Your task to perform on an android device: open app "Flipkart Online Shopping App" (install if not already installed) Image 0: 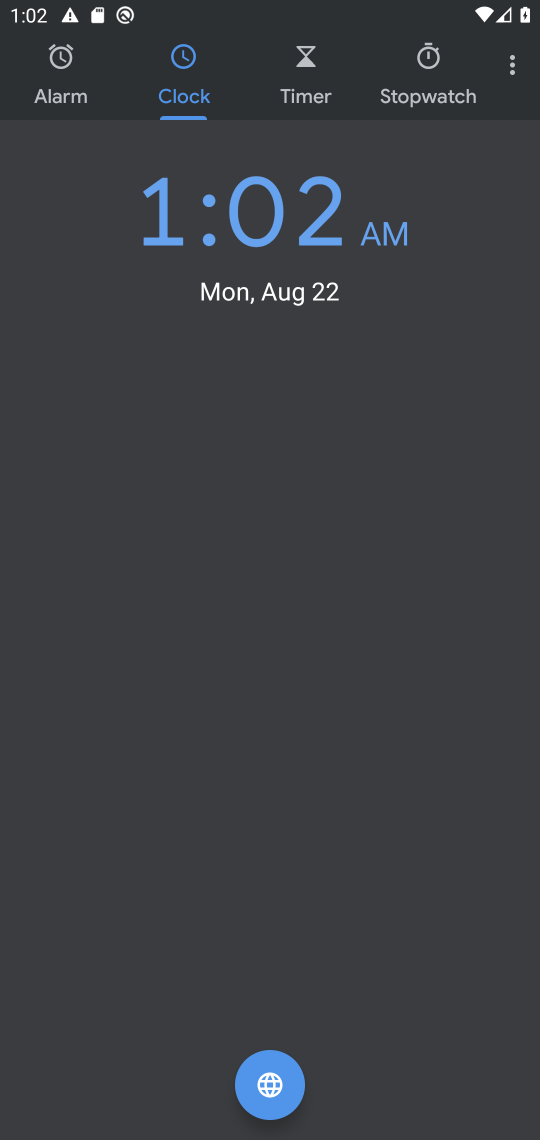
Step 0: press home button
Your task to perform on an android device: open app "Flipkart Online Shopping App" (install if not already installed) Image 1: 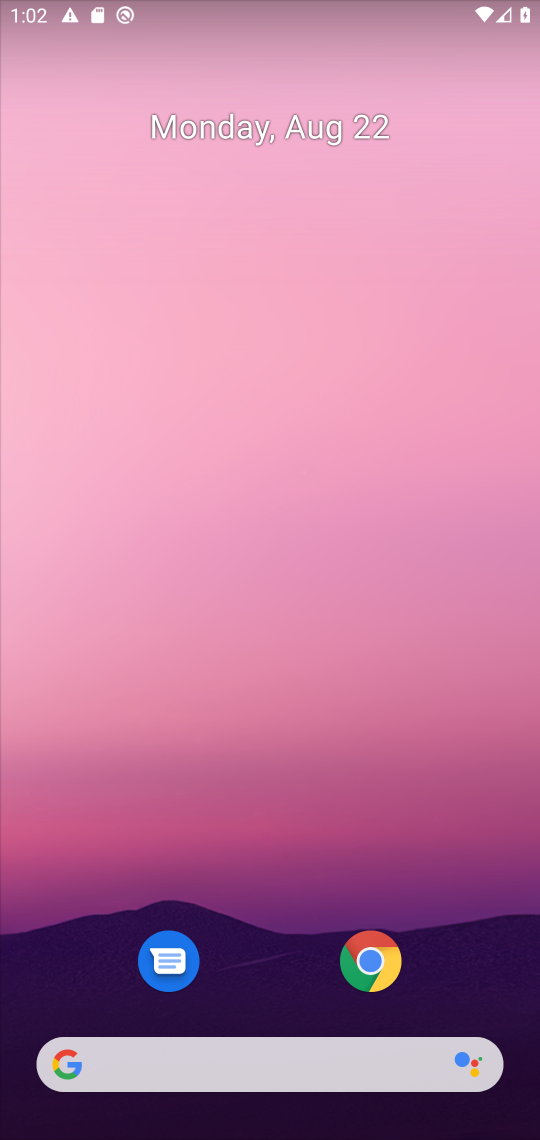
Step 1: drag from (486, 1005) to (481, 315)
Your task to perform on an android device: open app "Flipkart Online Shopping App" (install if not already installed) Image 2: 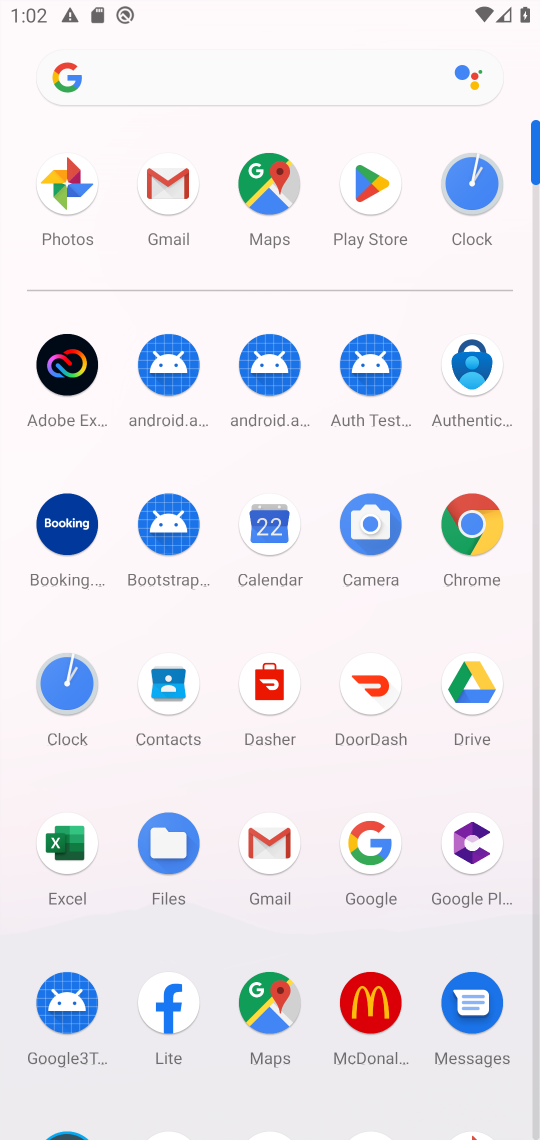
Step 2: click (357, 185)
Your task to perform on an android device: open app "Flipkart Online Shopping App" (install if not already installed) Image 3: 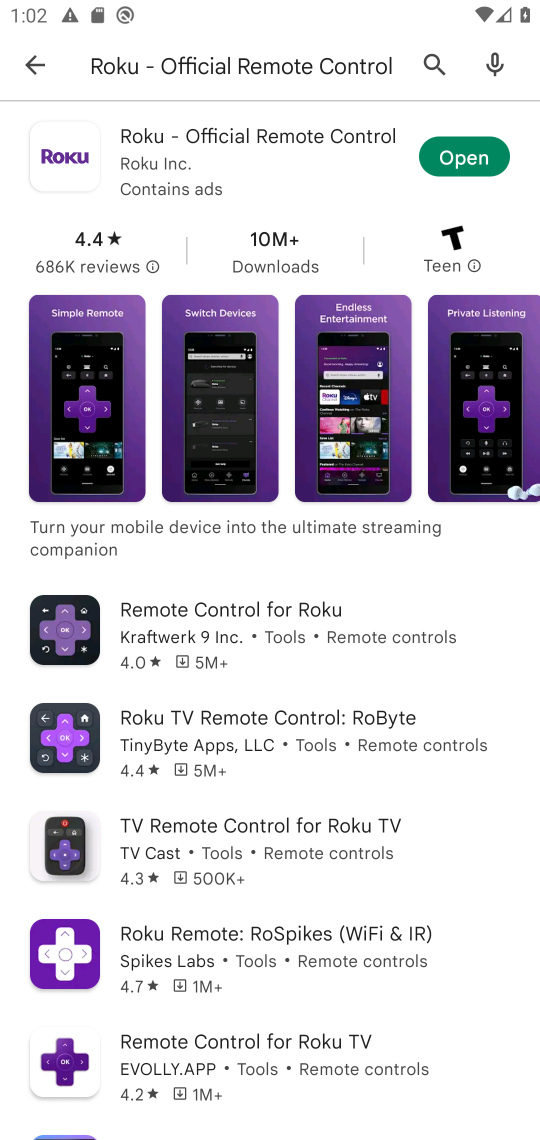
Step 3: press back button
Your task to perform on an android device: open app "Flipkart Online Shopping App" (install if not already installed) Image 4: 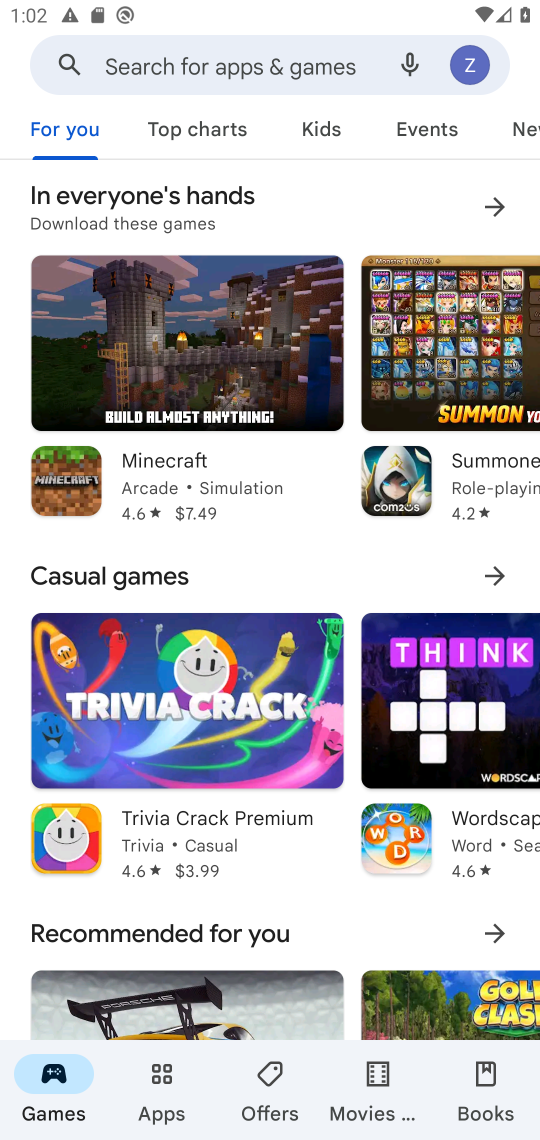
Step 4: click (294, 55)
Your task to perform on an android device: open app "Flipkart Online Shopping App" (install if not already installed) Image 5: 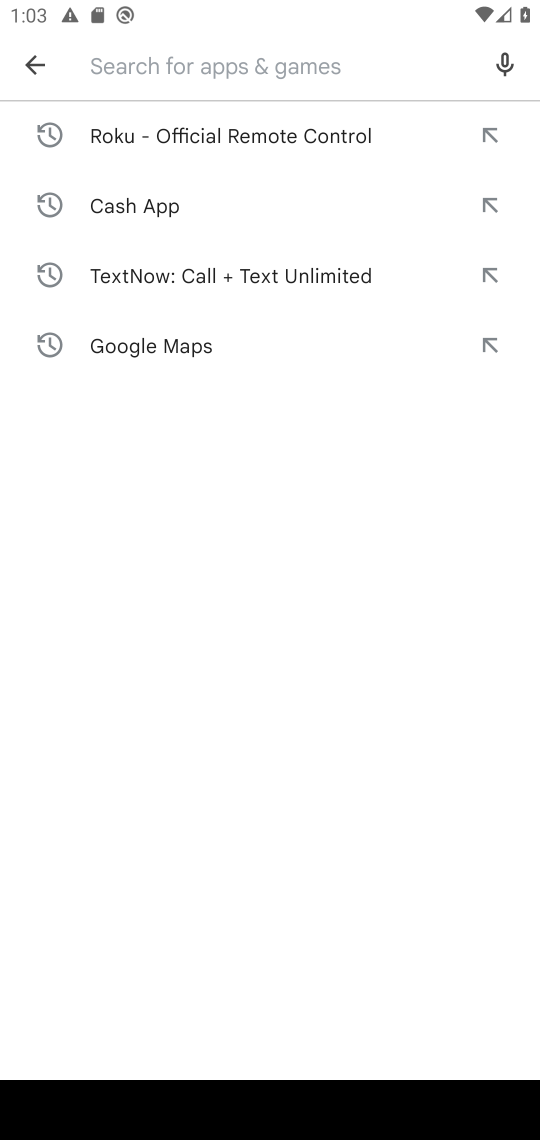
Step 5: type "Flipkart Online Shopping App"
Your task to perform on an android device: open app "Flipkart Online Shopping App" (install if not already installed) Image 6: 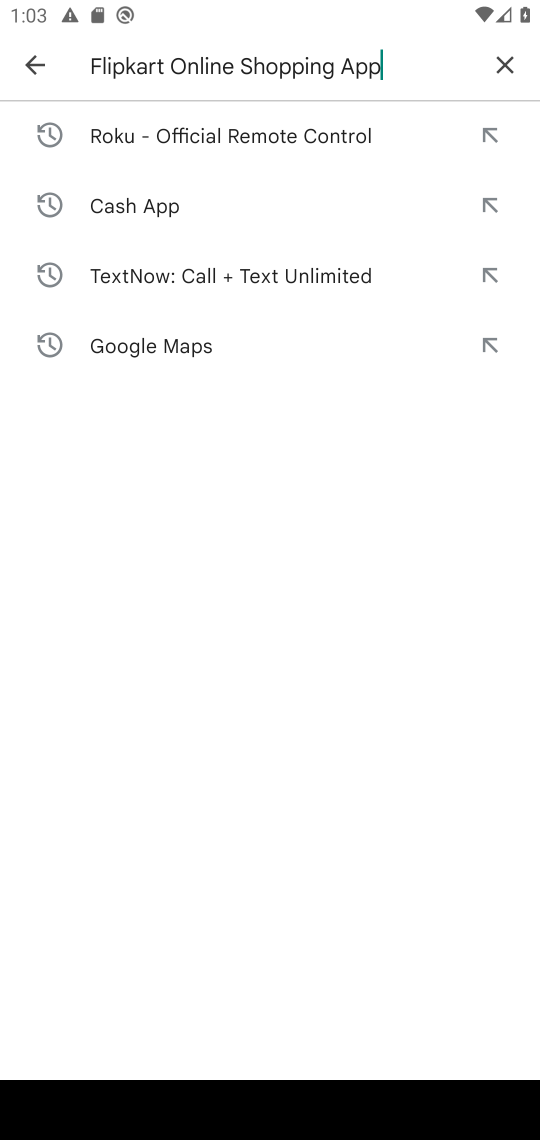
Step 6: press enter
Your task to perform on an android device: open app "Flipkart Online Shopping App" (install if not already installed) Image 7: 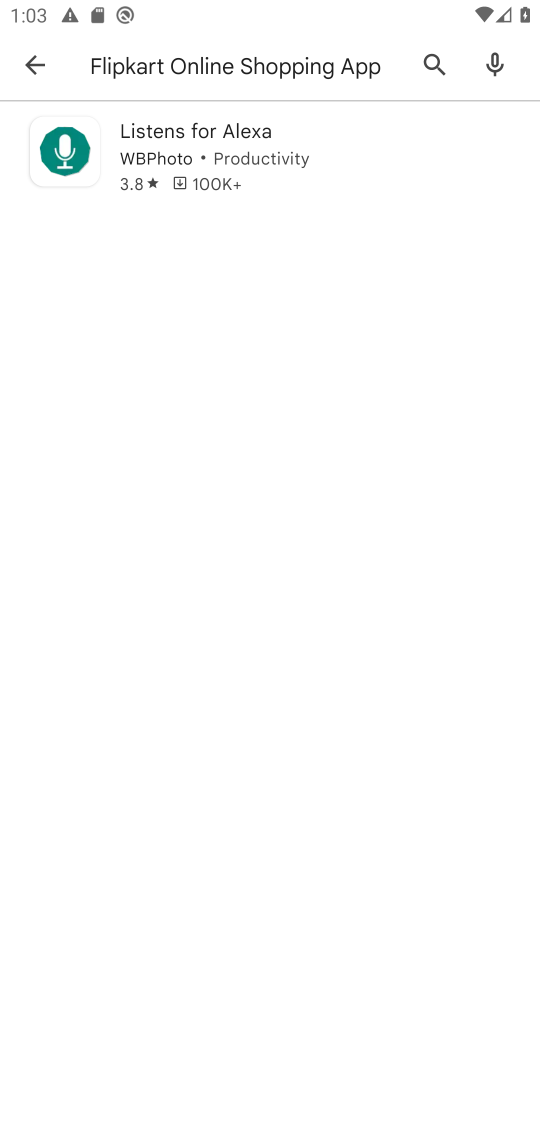
Step 7: task complete